Your task to perform on an android device: Toggle the flashlight Image 0: 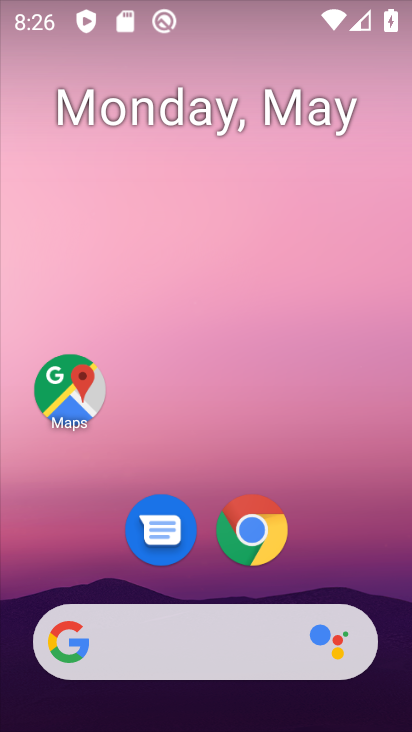
Step 0: drag from (307, 9) to (317, 473)
Your task to perform on an android device: Toggle the flashlight Image 1: 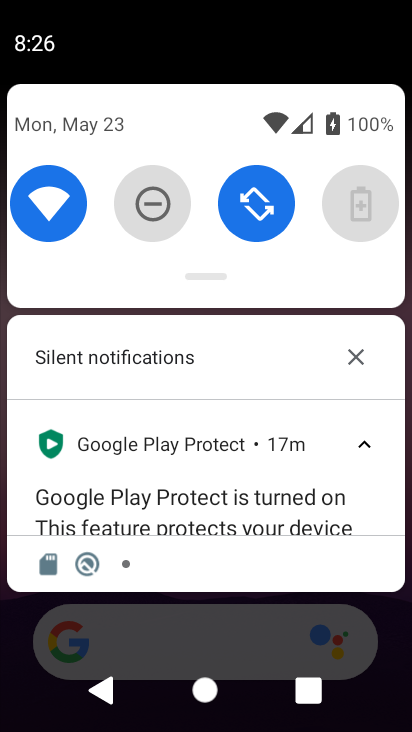
Step 1: drag from (208, 237) to (247, 638)
Your task to perform on an android device: Toggle the flashlight Image 2: 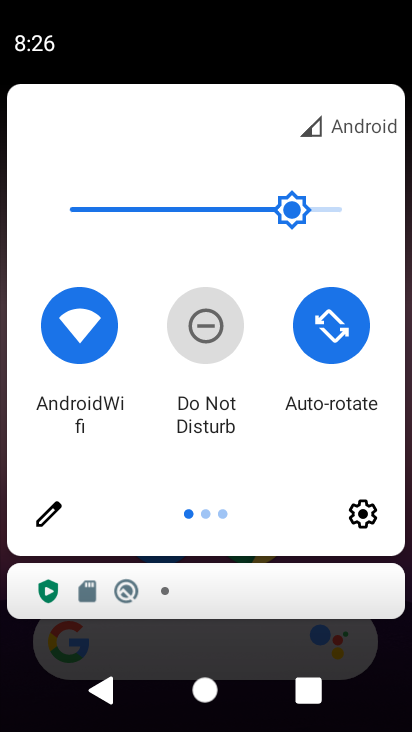
Step 2: click (48, 518)
Your task to perform on an android device: Toggle the flashlight Image 3: 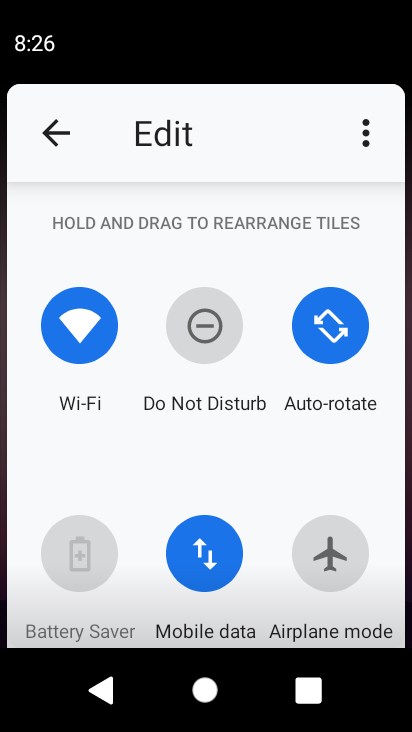
Step 3: task complete